Your task to perform on an android device: all mails in gmail Image 0: 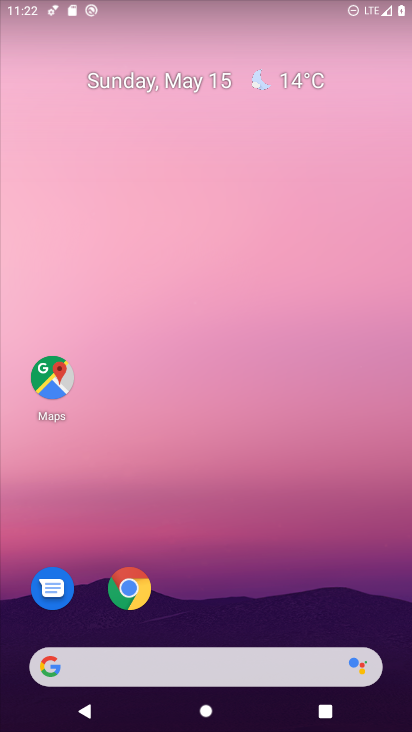
Step 0: drag from (283, 19) to (157, 16)
Your task to perform on an android device: all mails in gmail Image 1: 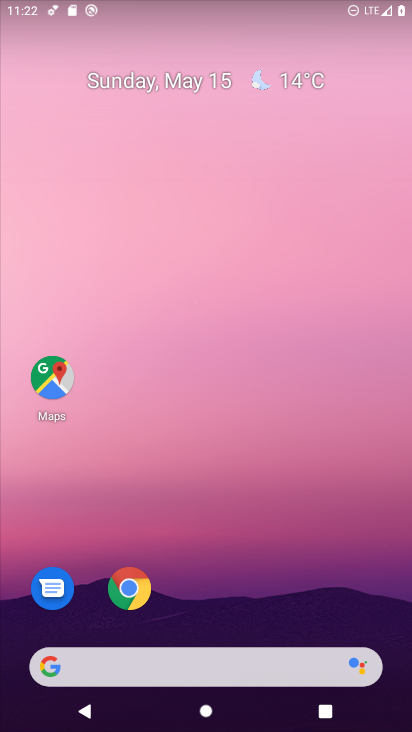
Step 1: drag from (240, 624) to (3, 329)
Your task to perform on an android device: all mails in gmail Image 2: 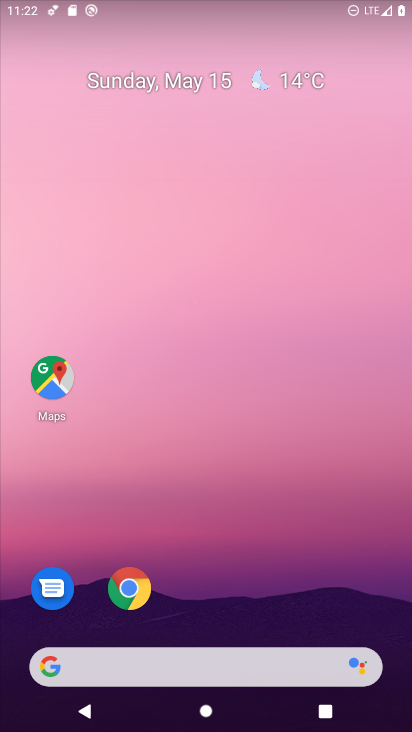
Step 2: click (134, 469)
Your task to perform on an android device: all mails in gmail Image 3: 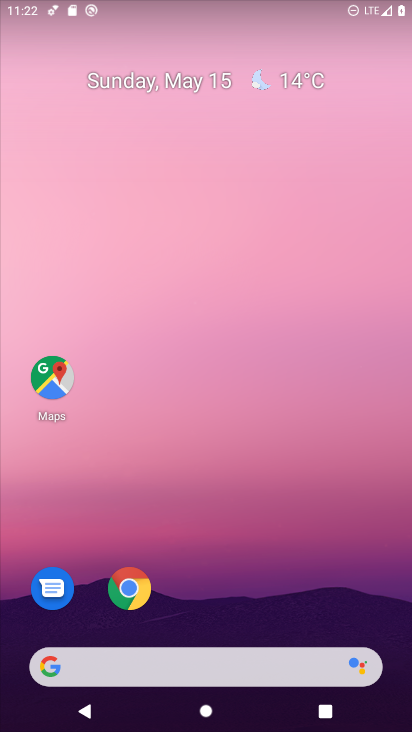
Step 3: click (127, 592)
Your task to perform on an android device: all mails in gmail Image 4: 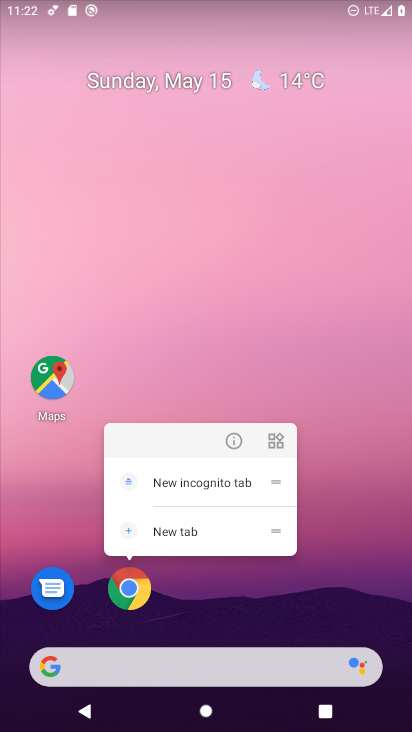
Step 4: click (127, 564)
Your task to perform on an android device: all mails in gmail Image 5: 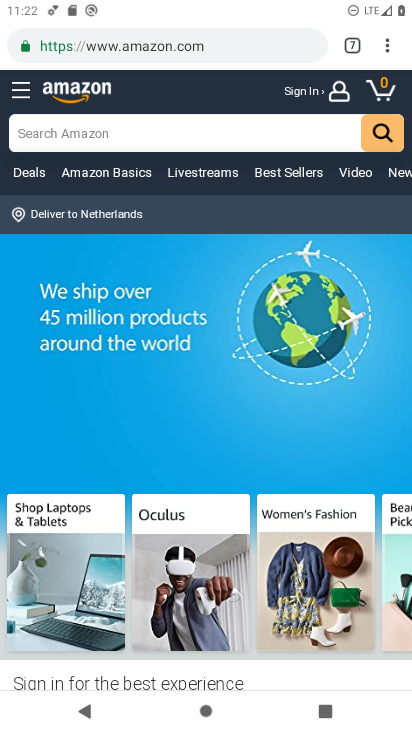
Step 5: press home button
Your task to perform on an android device: all mails in gmail Image 6: 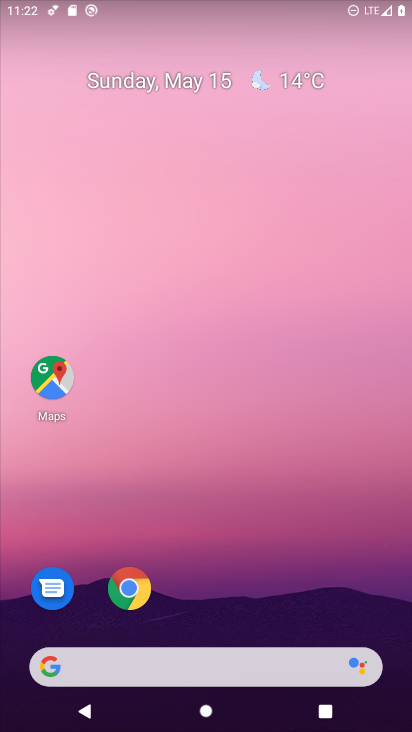
Step 6: drag from (208, 606) to (82, 15)
Your task to perform on an android device: all mails in gmail Image 7: 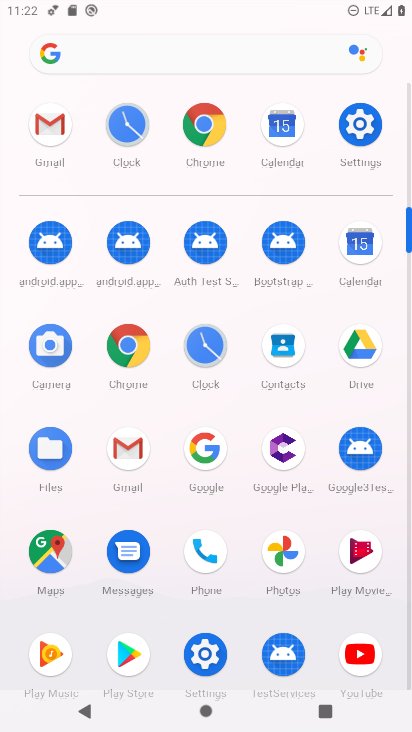
Step 7: click (134, 452)
Your task to perform on an android device: all mails in gmail Image 8: 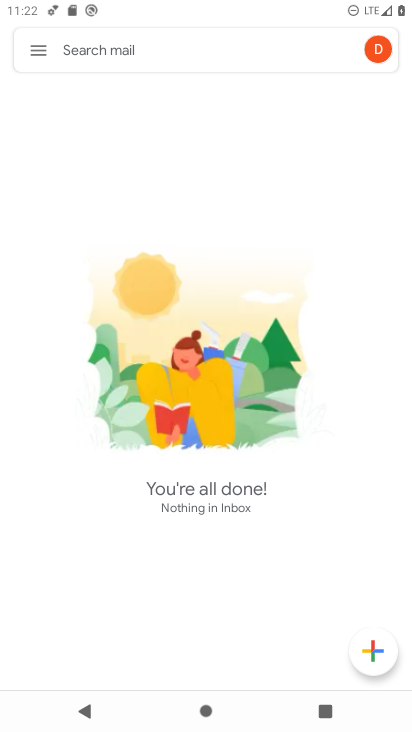
Step 8: click (25, 45)
Your task to perform on an android device: all mails in gmail Image 9: 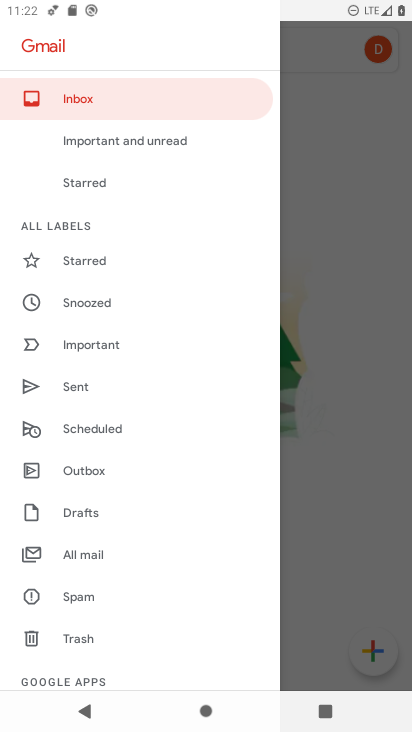
Step 9: click (100, 553)
Your task to perform on an android device: all mails in gmail Image 10: 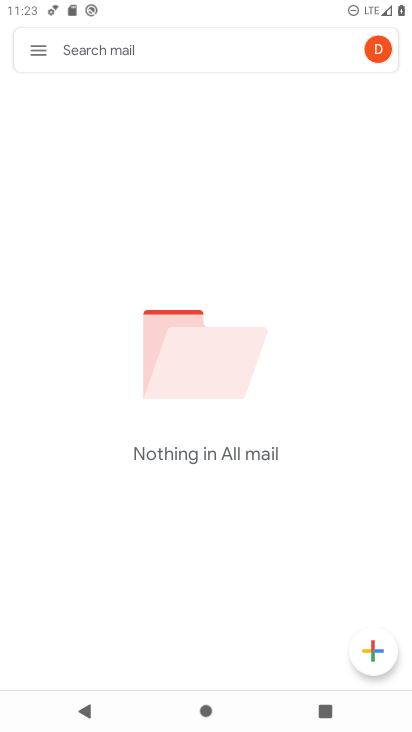
Step 10: task complete